Your task to perform on an android device: Go to eBay Image 0: 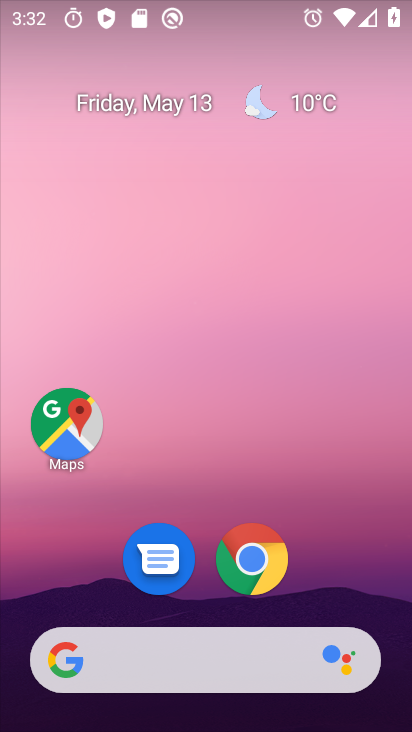
Step 0: click (259, 589)
Your task to perform on an android device: Go to eBay Image 1: 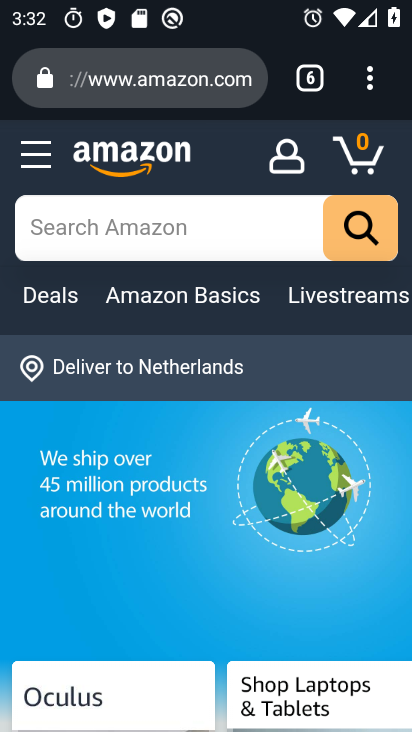
Step 1: click (302, 77)
Your task to perform on an android device: Go to eBay Image 2: 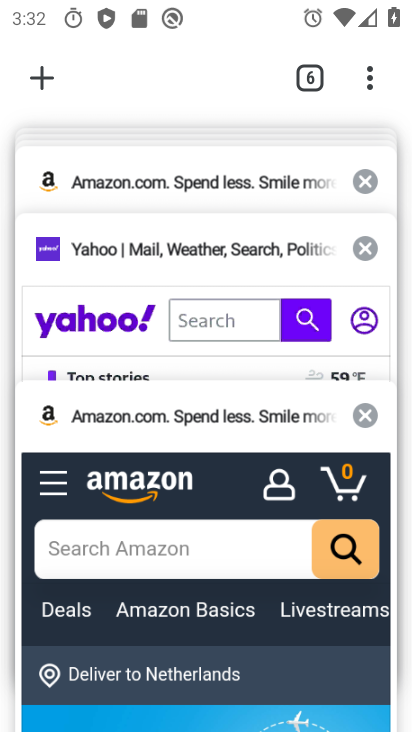
Step 2: click (36, 72)
Your task to perform on an android device: Go to eBay Image 3: 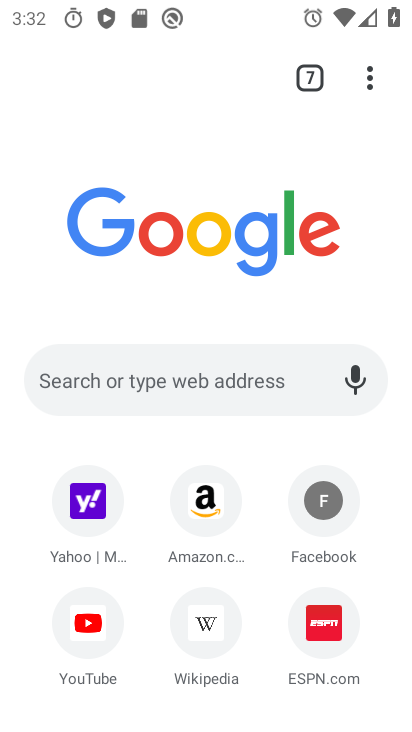
Step 3: click (185, 366)
Your task to perform on an android device: Go to eBay Image 4: 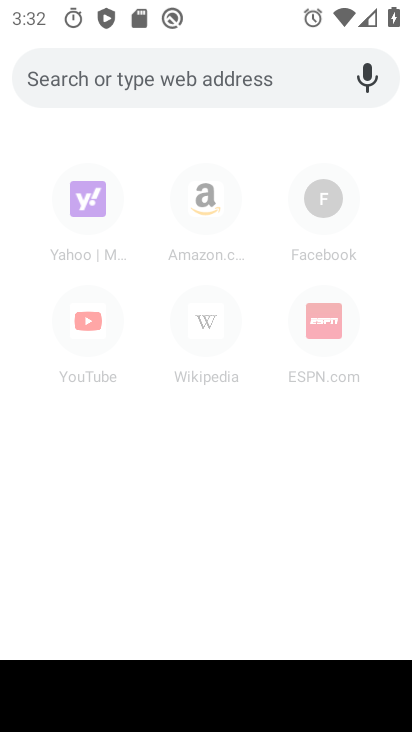
Step 4: type "eBay"
Your task to perform on an android device: Go to eBay Image 5: 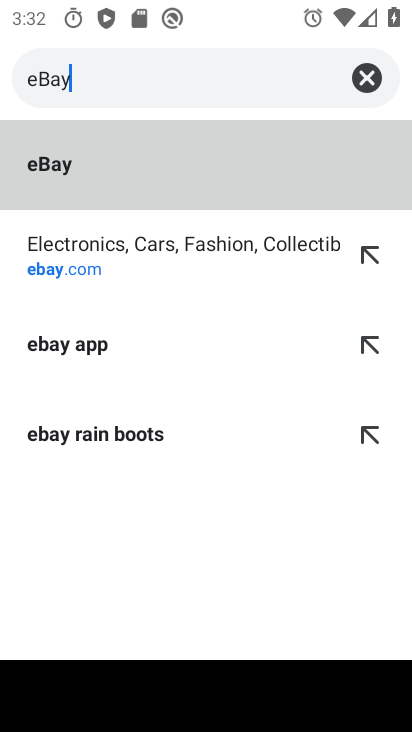
Step 5: click (202, 165)
Your task to perform on an android device: Go to eBay Image 6: 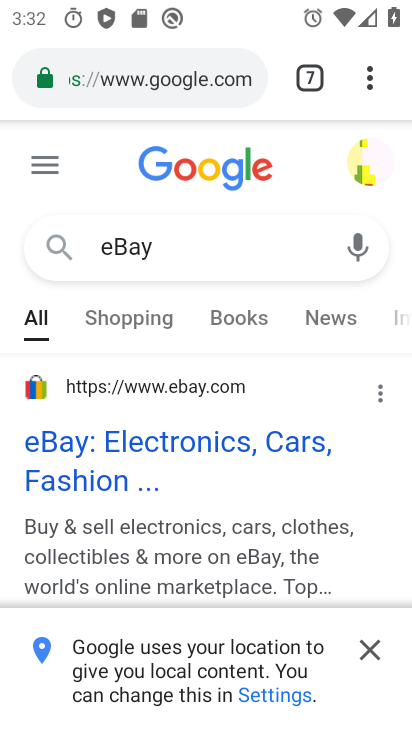
Step 6: click (96, 436)
Your task to perform on an android device: Go to eBay Image 7: 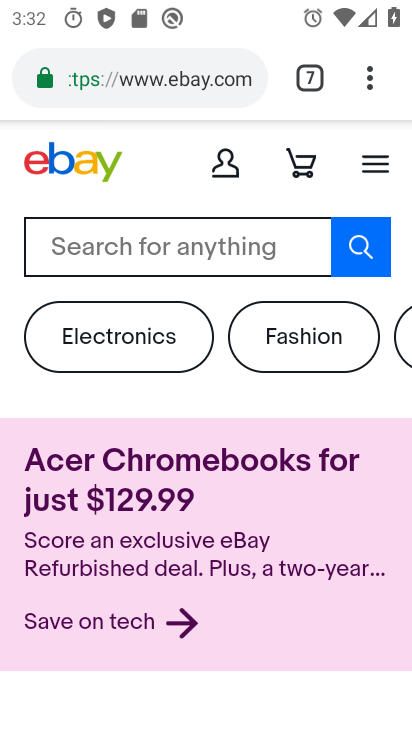
Step 7: task complete